Your task to perform on an android device: Open Chrome and go to the settings page Image 0: 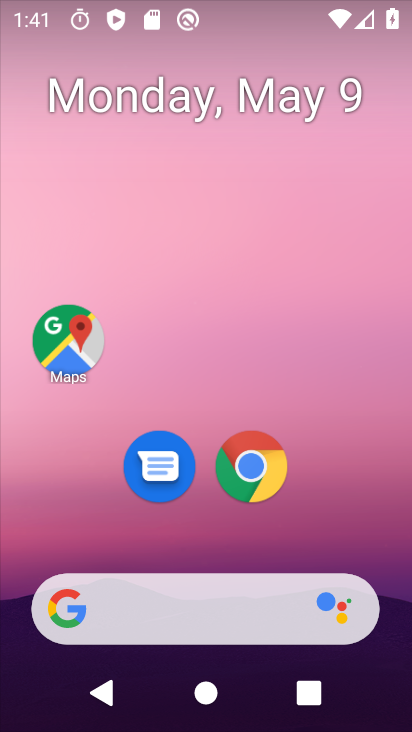
Step 0: drag from (226, 601) to (222, 288)
Your task to perform on an android device: Open Chrome and go to the settings page Image 1: 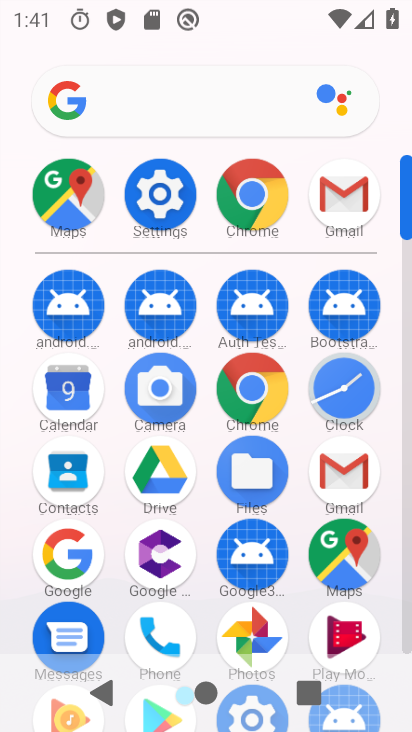
Step 1: click (261, 208)
Your task to perform on an android device: Open Chrome and go to the settings page Image 2: 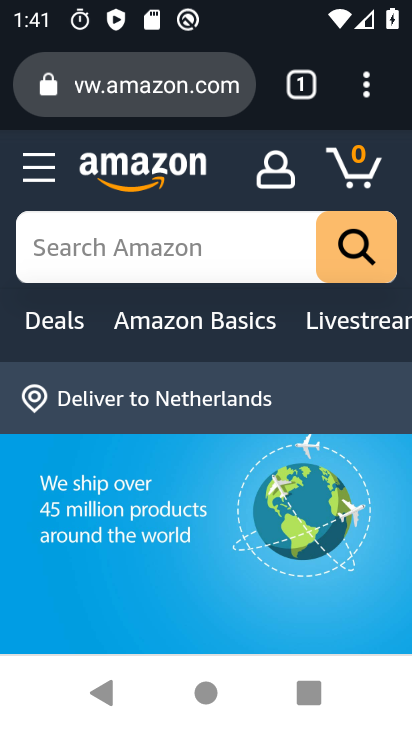
Step 2: click (366, 90)
Your task to perform on an android device: Open Chrome and go to the settings page Image 3: 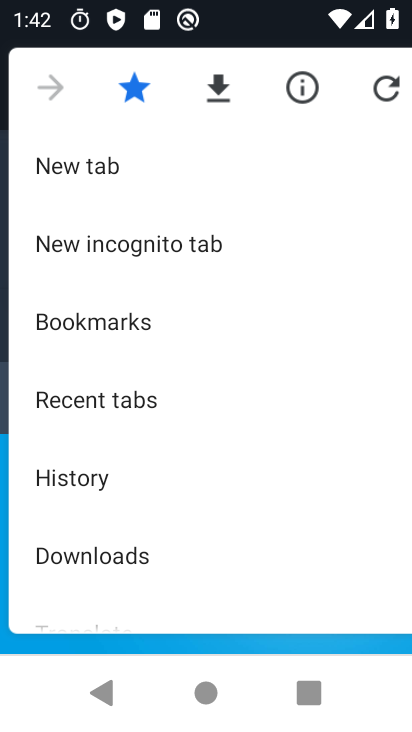
Step 3: drag from (193, 508) to (199, 60)
Your task to perform on an android device: Open Chrome and go to the settings page Image 4: 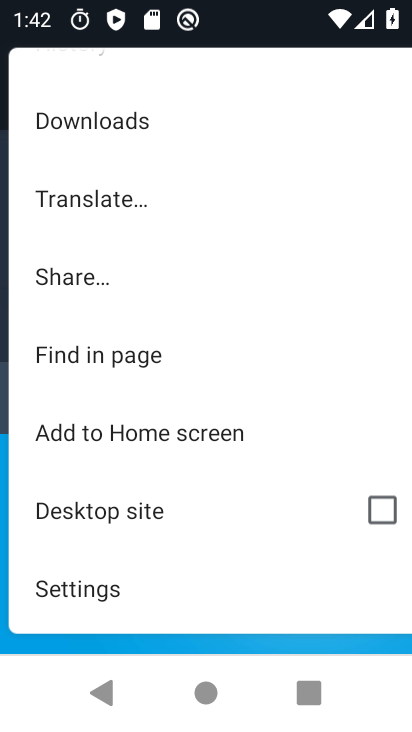
Step 4: click (118, 580)
Your task to perform on an android device: Open Chrome and go to the settings page Image 5: 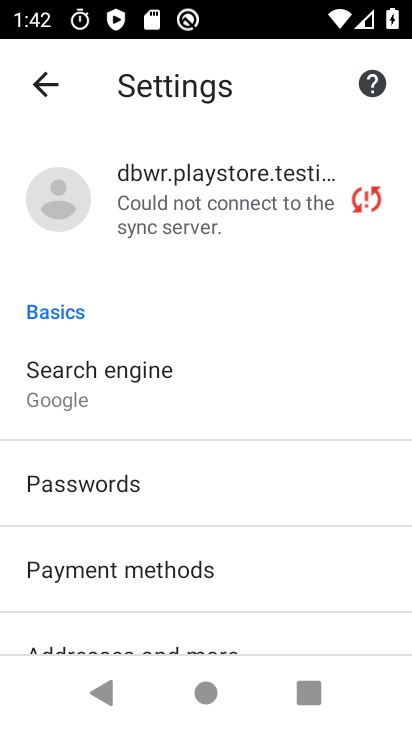
Step 5: task complete